Your task to perform on an android device: check data usage Image 0: 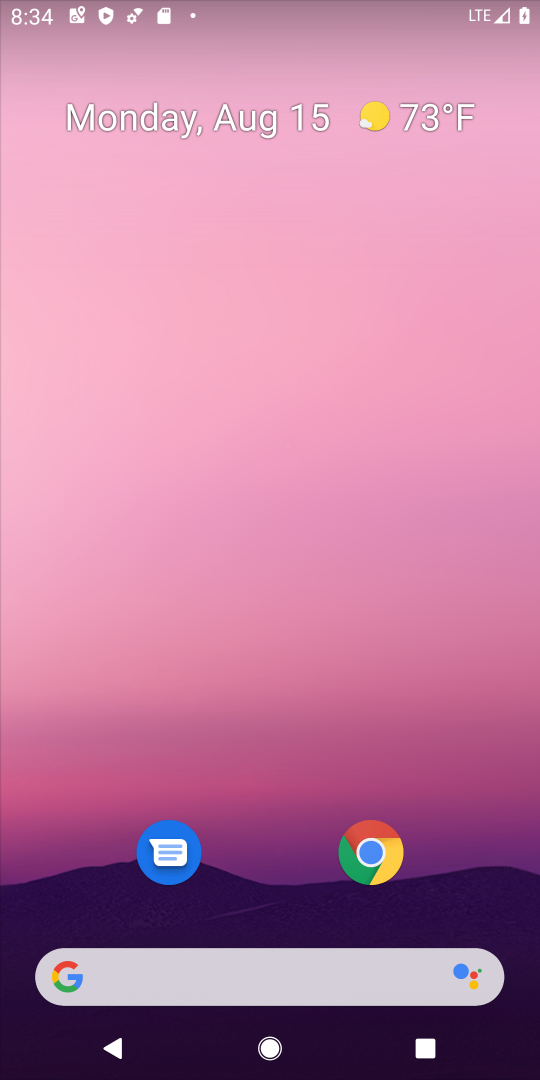
Step 0: drag from (242, 984) to (271, 165)
Your task to perform on an android device: check data usage Image 1: 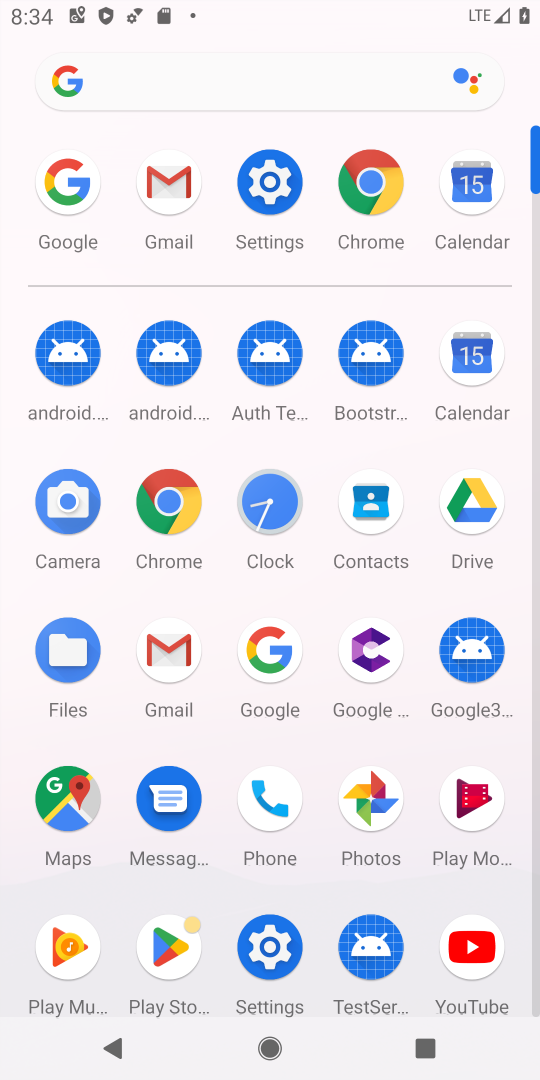
Step 1: click (267, 182)
Your task to perform on an android device: check data usage Image 2: 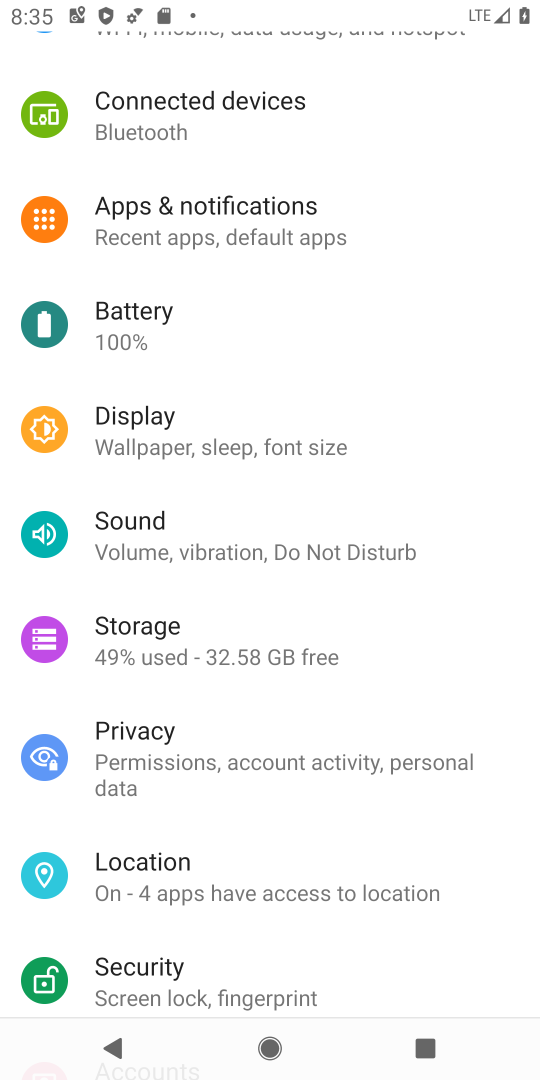
Step 2: drag from (267, 179) to (259, 391)
Your task to perform on an android device: check data usage Image 3: 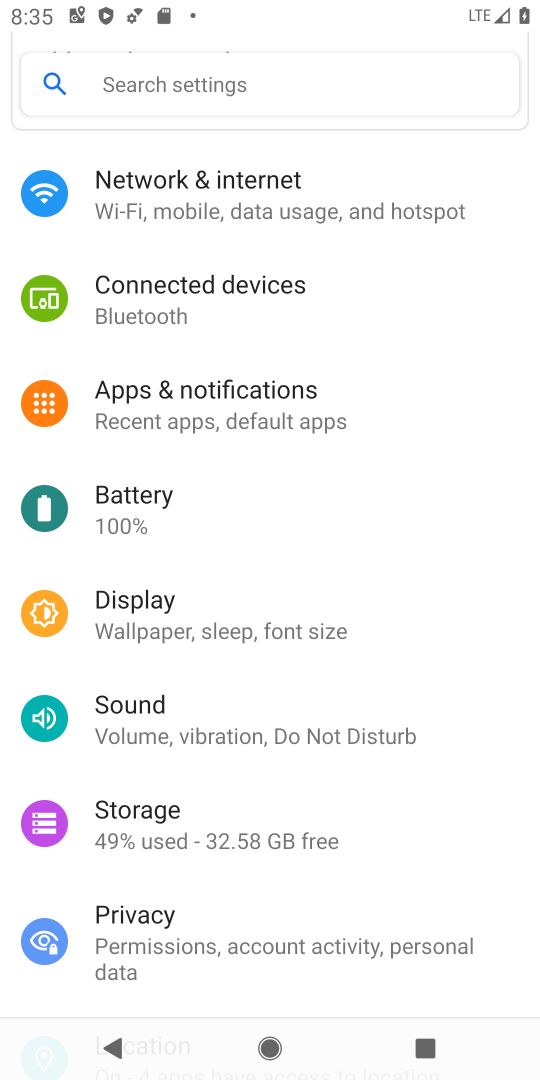
Step 3: drag from (275, 251) to (243, 488)
Your task to perform on an android device: check data usage Image 4: 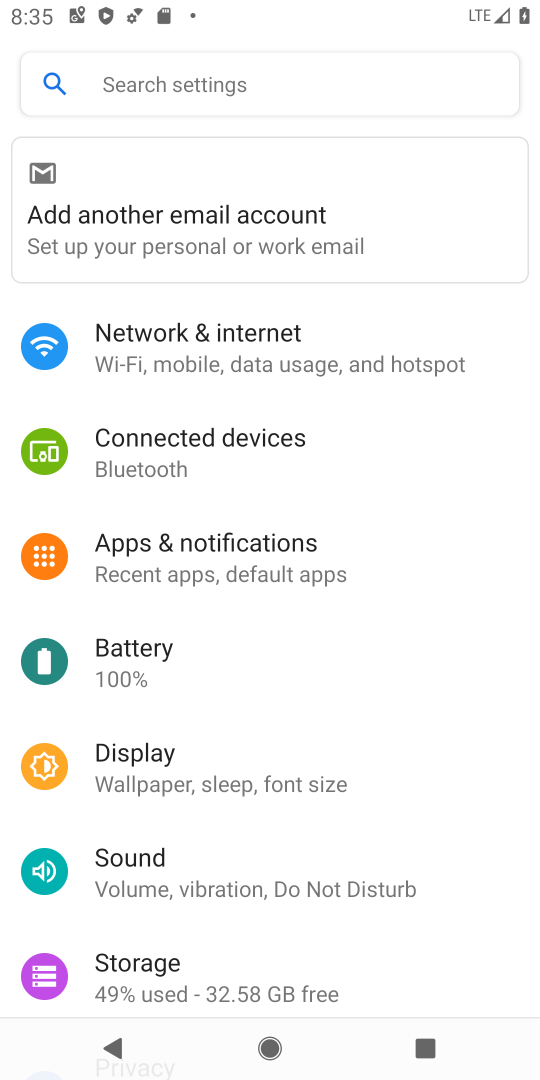
Step 4: click (222, 350)
Your task to perform on an android device: check data usage Image 5: 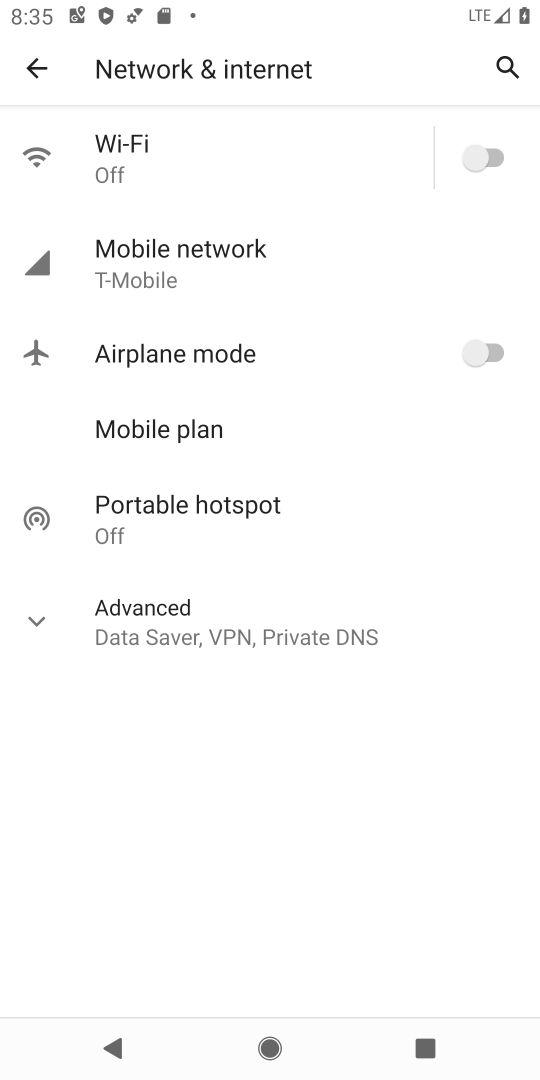
Step 5: click (180, 275)
Your task to perform on an android device: check data usage Image 6: 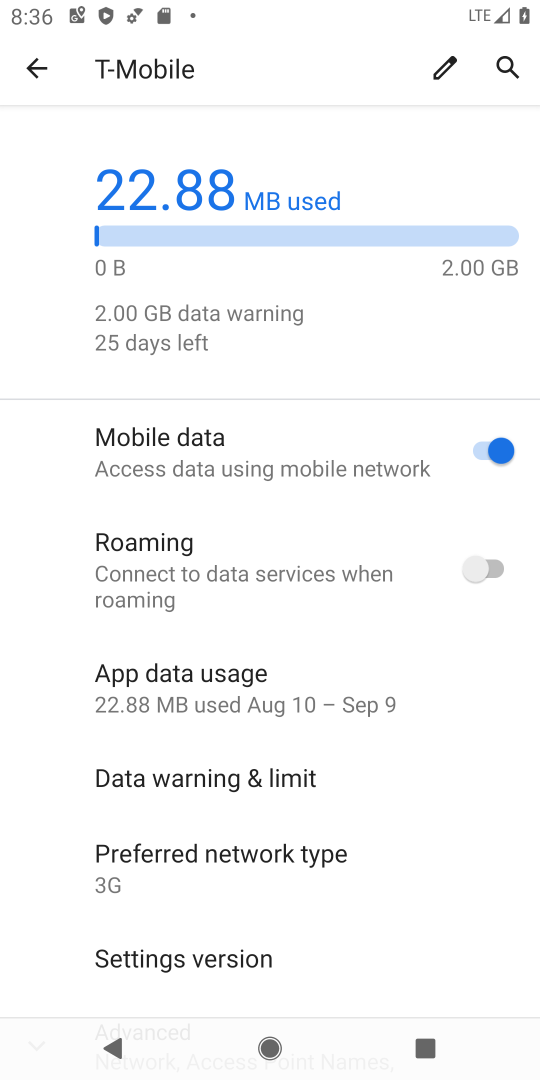
Step 6: task complete